Your task to perform on an android device: Open Google Chrome and open the bookmarks view Image 0: 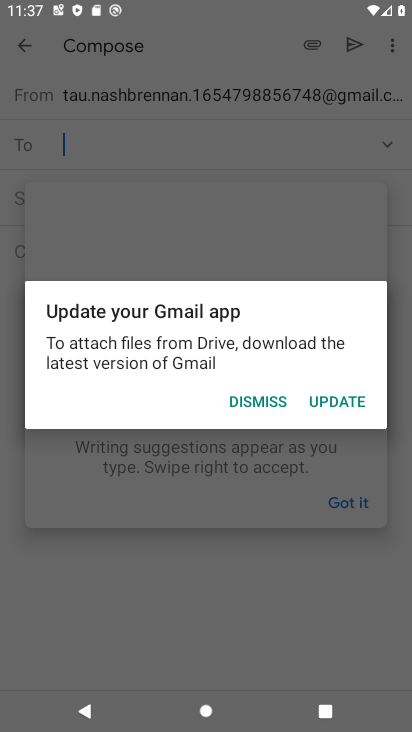
Step 0: click (246, 395)
Your task to perform on an android device: Open Google Chrome and open the bookmarks view Image 1: 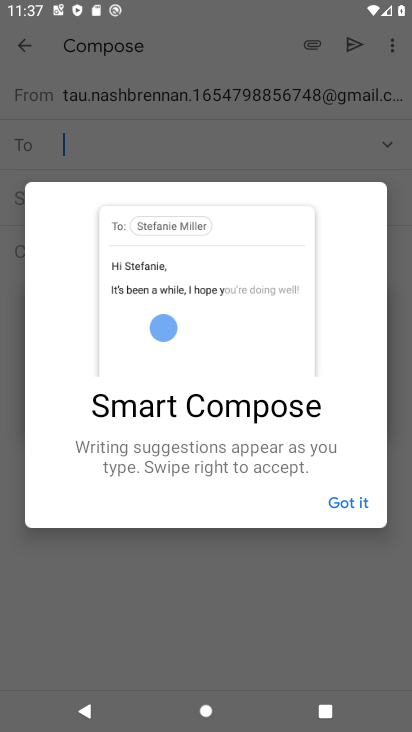
Step 1: click (347, 502)
Your task to perform on an android device: Open Google Chrome and open the bookmarks view Image 2: 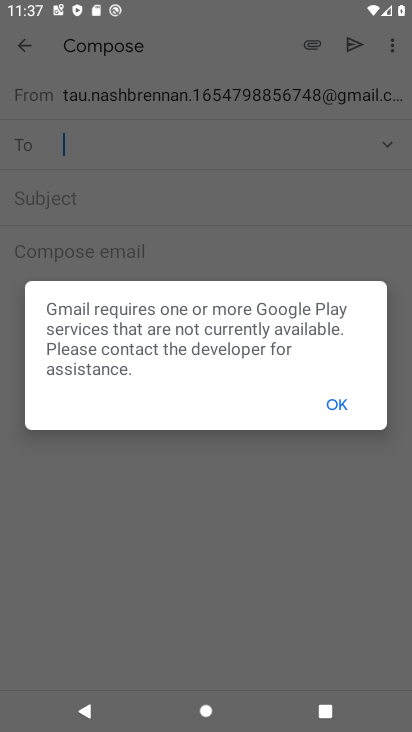
Step 2: click (324, 410)
Your task to perform on an android device: Open Google Chrome and open the bookmarks view Image 3: 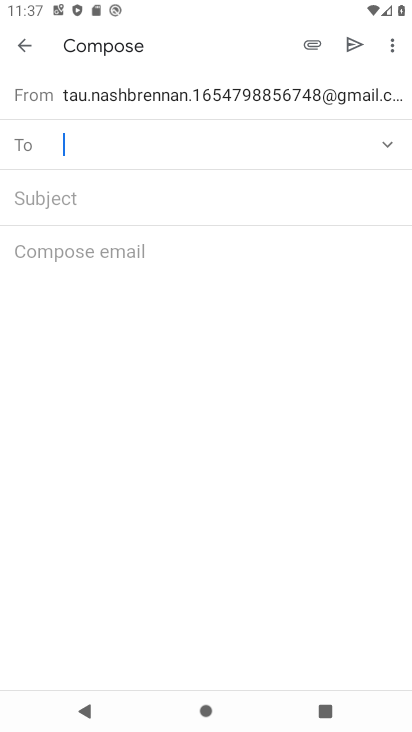
Step 3: press home button
Your task to perform on an android device: Open Google Chrome and open the bookmarks view Image 4: 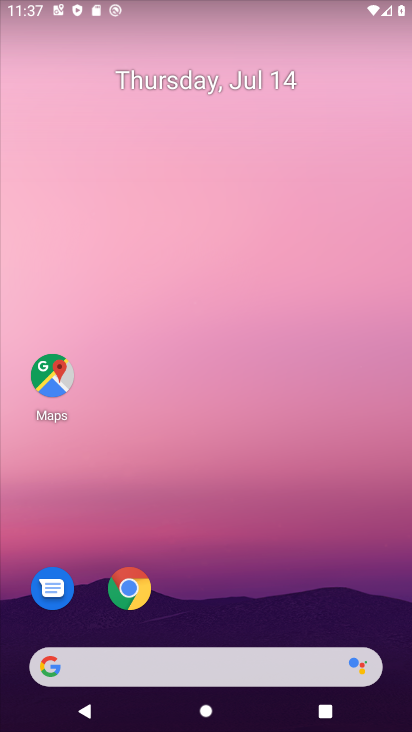
Step 4: click (136, 590)
Your task to perform on an android device: Open Google Chrome and open the bookmarks view Image 5: 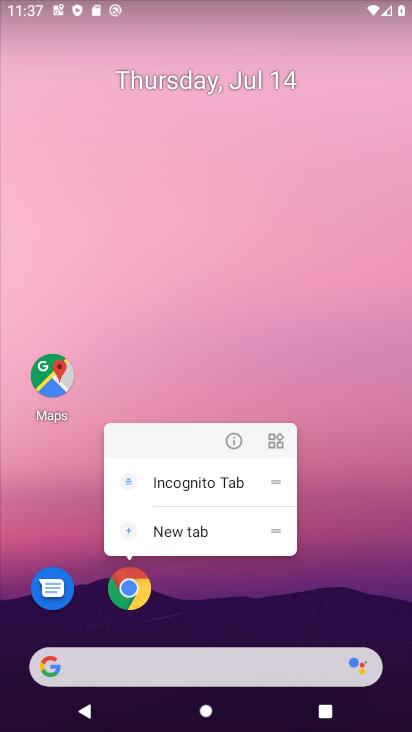
Step 5: click (134, 588)
Your task to perform on an android device: Open Google Chrome and open the bookmarks view Image 6: 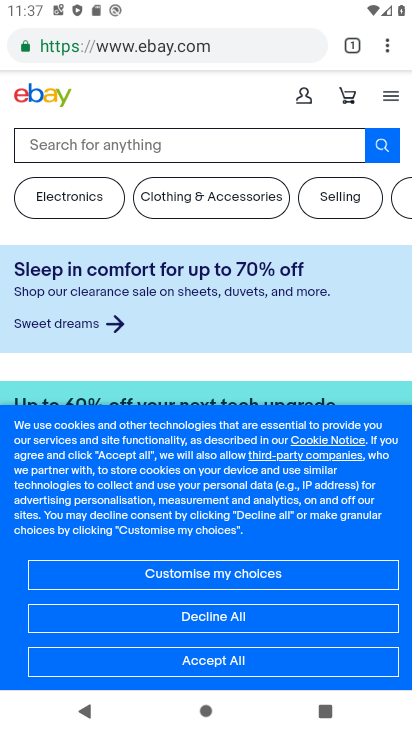
Step 6: task complete